Your task to perform on an android device: Go to Android settings Image 0: 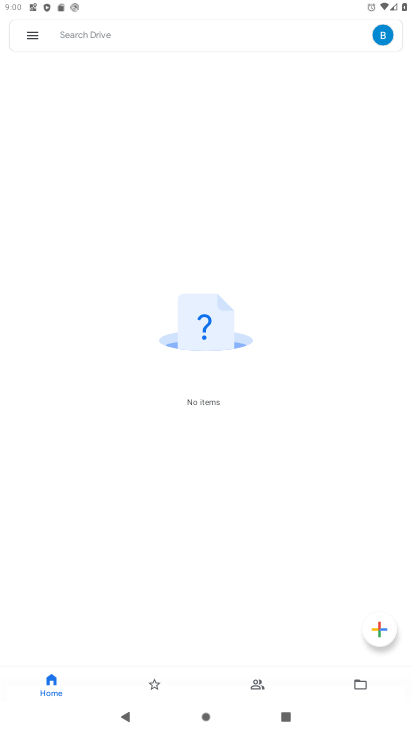
Step 0: press home button
Your task to perform on an android device: Go to Android settings Image 1: 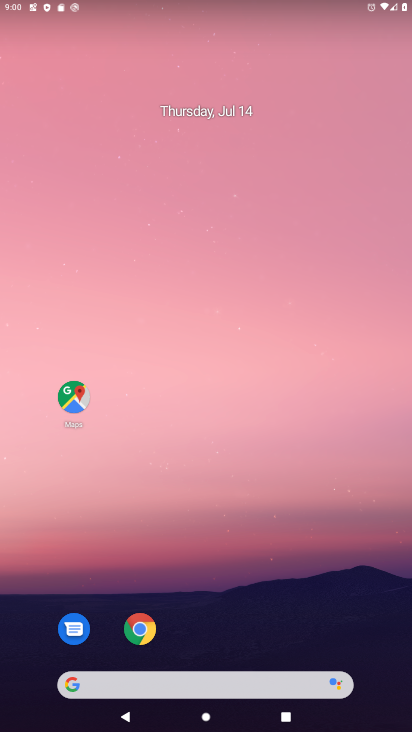
Step 1: drag from (242, 609) to (219, 85)
Your task to perform on an android device: Go to Android settings Image 2: 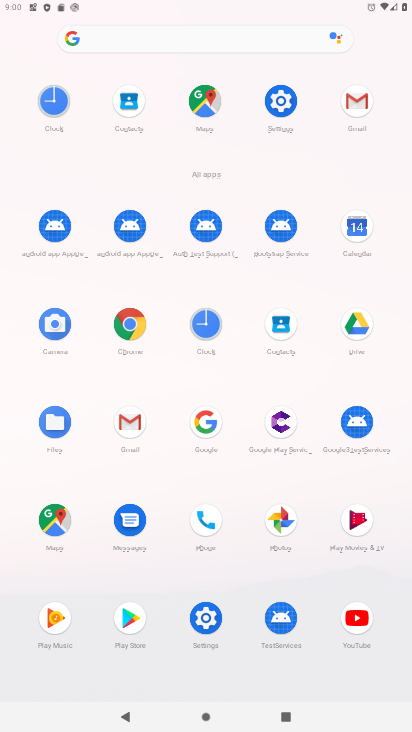
Step 2: click (266, 102)
Your task to perform on an android device: Go to Android settings Image 3: 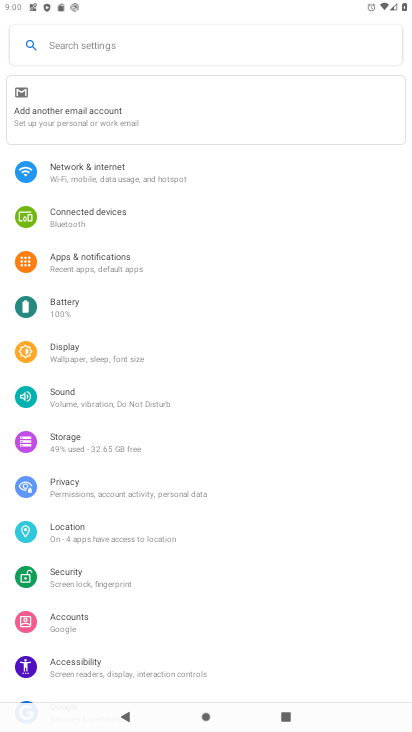
Step 3: drag from (126, 647) to (120, 171)
Your task to perform on an android device: Go to Android settings Image 4: 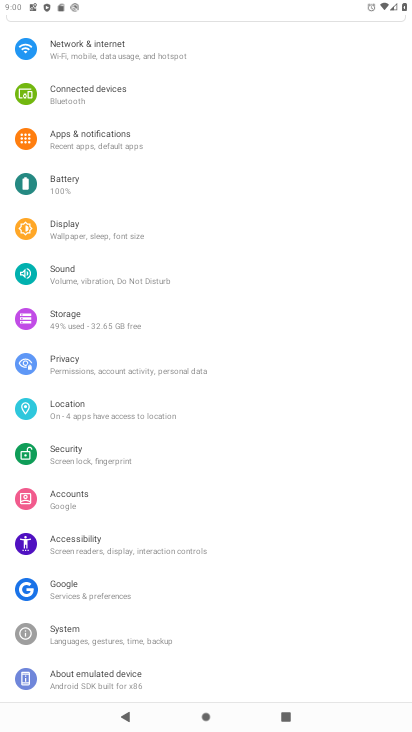
Step 4: click (145, 642)
Your task to perform on an android device: Go to Android settings Image 5: 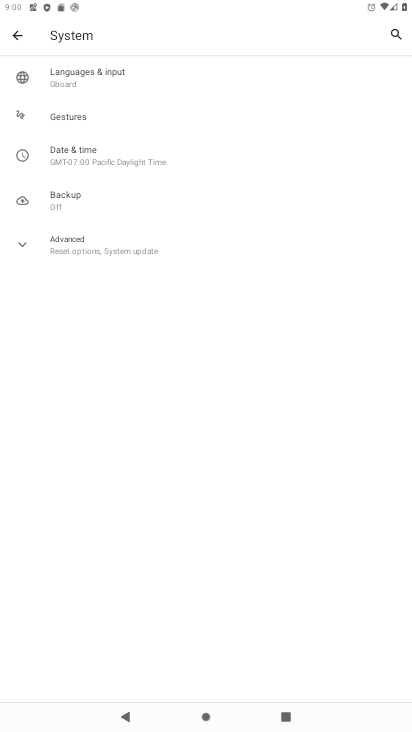
Step 5: task complete